Your task to perform on an android device: Open notification settings Image 0: 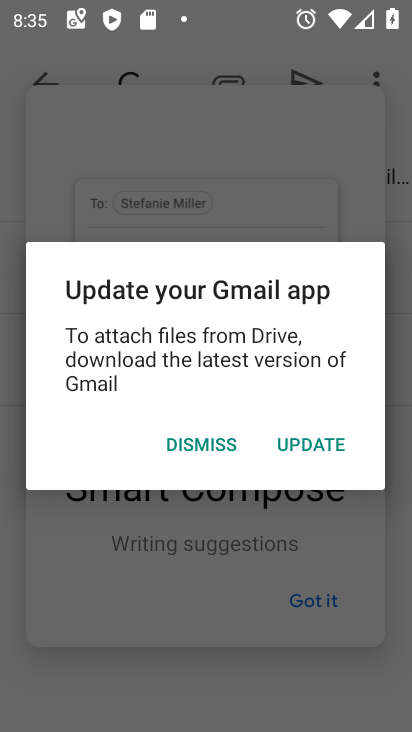
Step 0: press home button
Your task to perform on an android device: Open notification settings Image 1: 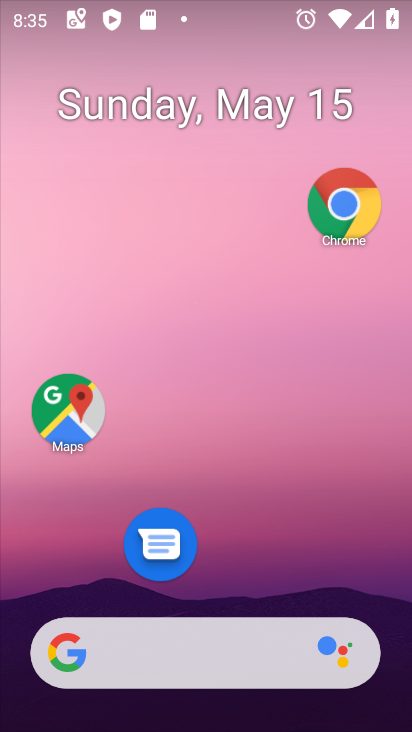
Step 1: drag from (241, 568) to (212, 48)
Your task to perform on an android device: Open notification settings Image 2: 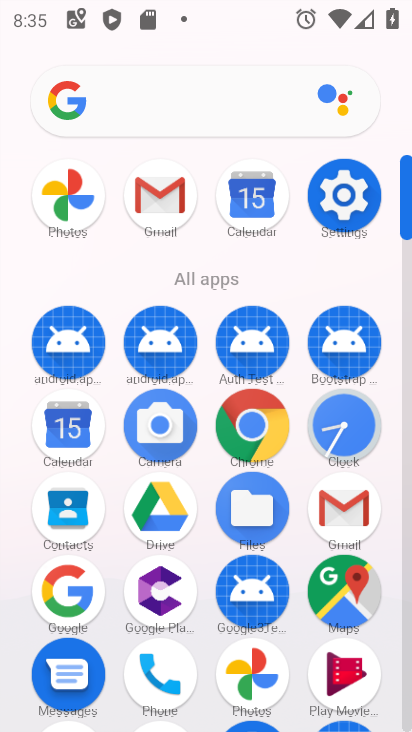
Step 2: click (334, 184)
Your task to perform on an android device: Open notification settings Image 3: 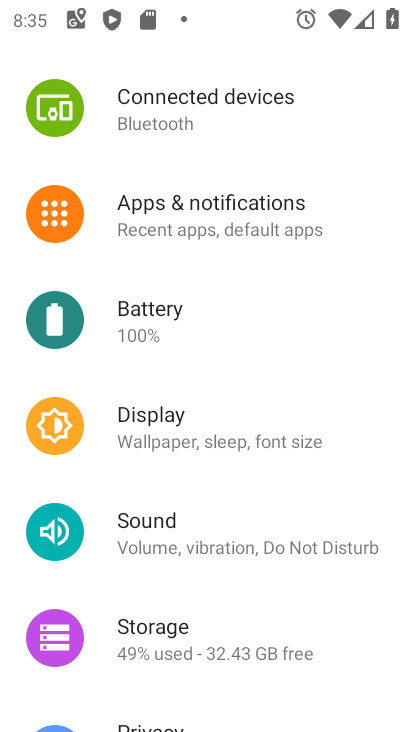
Step 3: click (206, 204)
Your task to perform on an android device: Open notification settings Image 4: 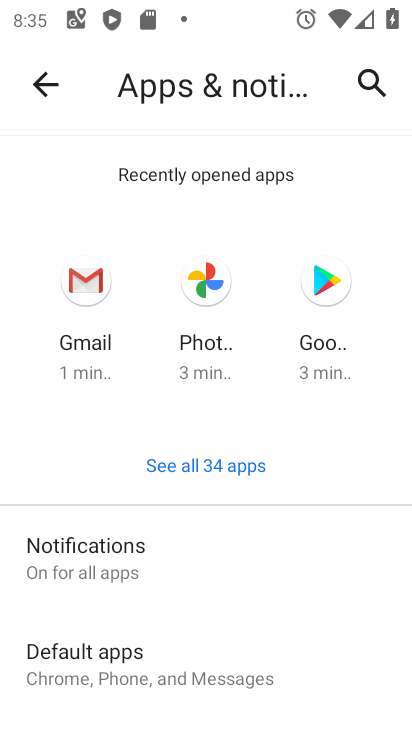
Step 4: click (165, 539)
Your task to perform on an android device: Open notification settings Image 5: 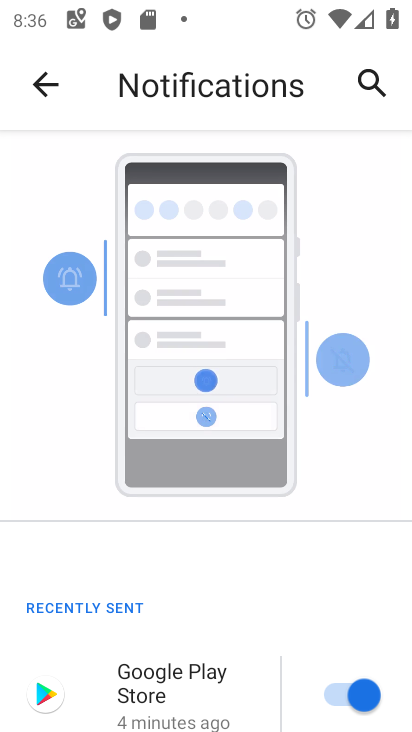
Step 5: task complete